Your task to perform on an android device: Search for sushi restaurants on Maps Image 0: 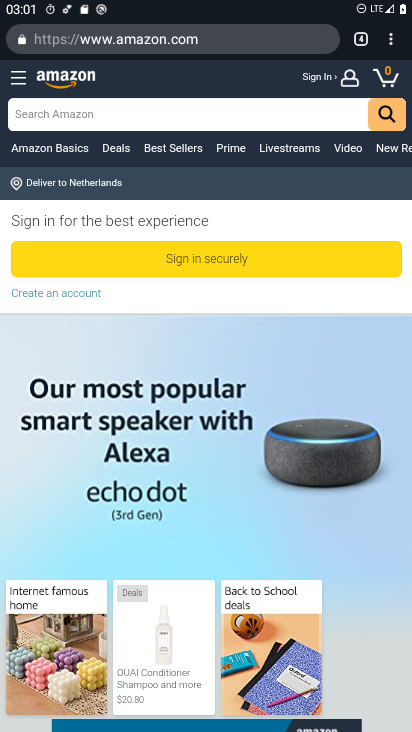
Step 0: press home button
Your task to perform on an android device: Search for sushi restaurants on Maps Image 1: 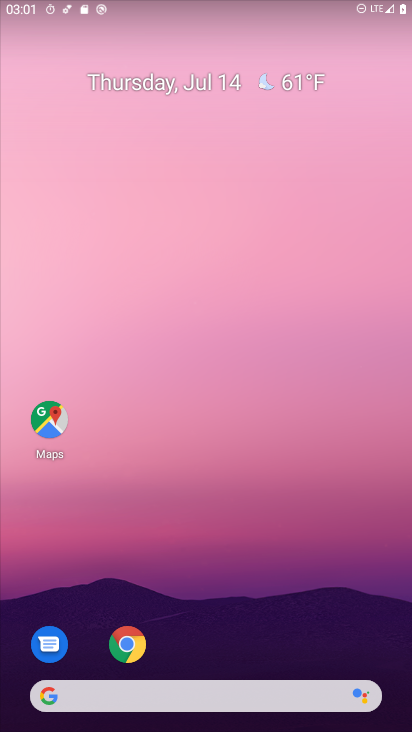
Step 1: click (47, 415)
Your task to perform on an android device: Search for sushi restaurants on Maps Image 2: 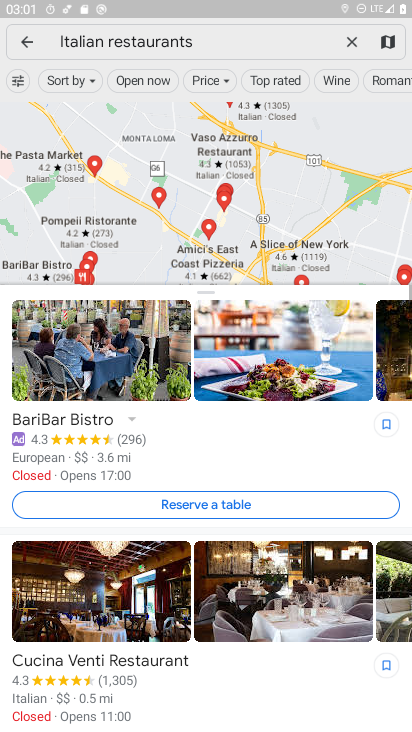
Step 2: click (353, 37)
Your task to perform on an android device: Search for sushi restaurants on Maps Image 3: 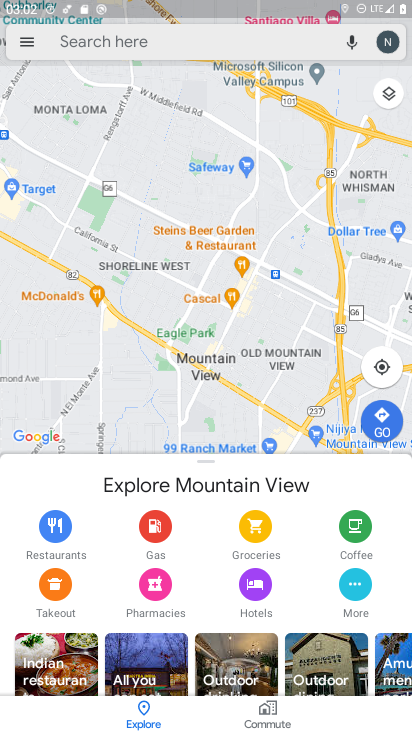
Step 3: click (177, 35)
Your task to perform on an android device: Search for sushi restaurants on Maps Image 4: 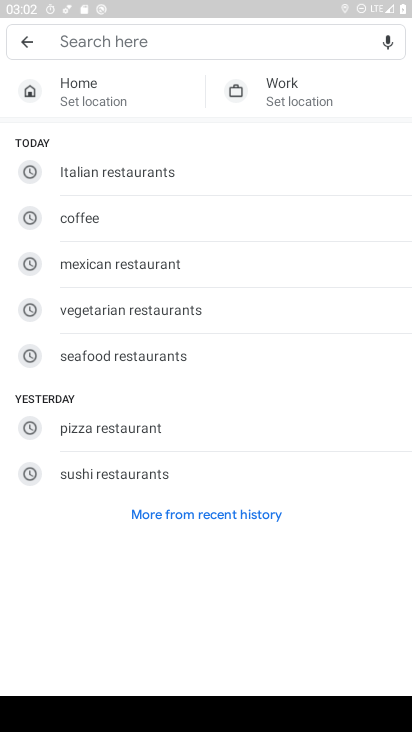
Step 4: click (153, 470)
Your task to perform on an android device: Search for sushi restaurants on Maps Image 5: 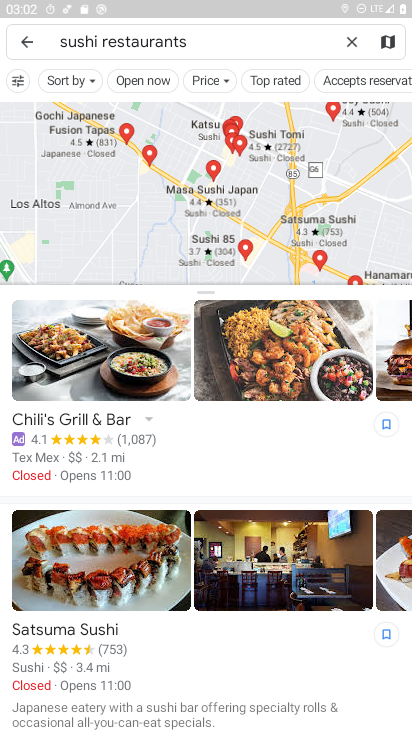
Step 5: task complete